Your task to perform on an android device: turn off notifications in google photos Image 0: 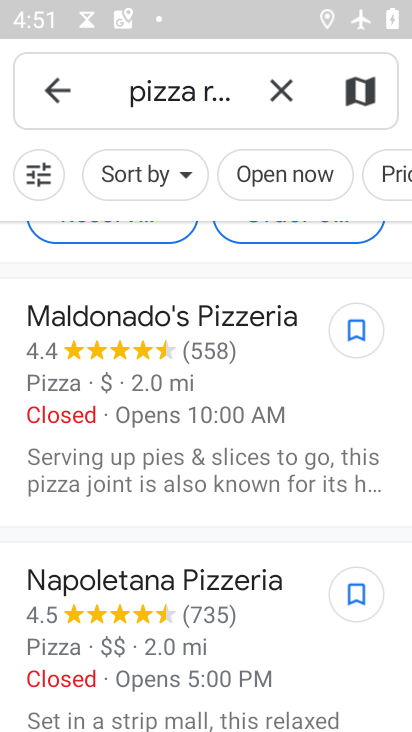
Step 0: press back button
Your task to perform on an android device: turn off notifications in google photos Image 1: 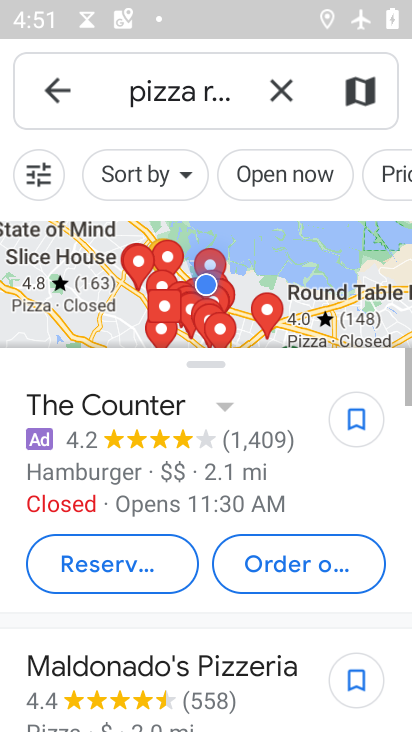
Step 1: press back button
Your task to perform on an android device: turn off notifications in google photos Image 2: 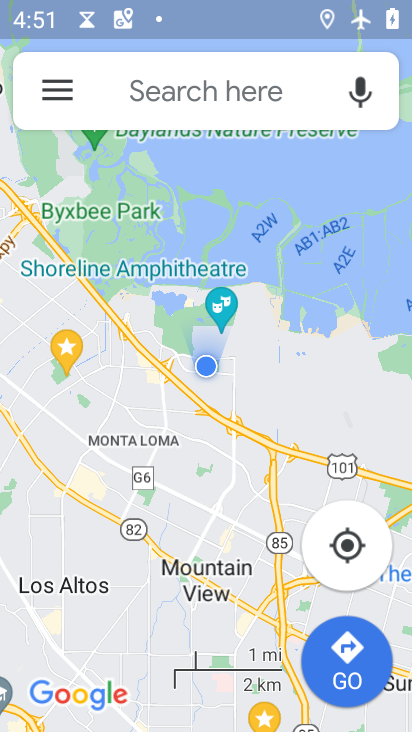
Step 2: press back button
Your task to perform on an android device: turn off notifications in google photos Image 3: 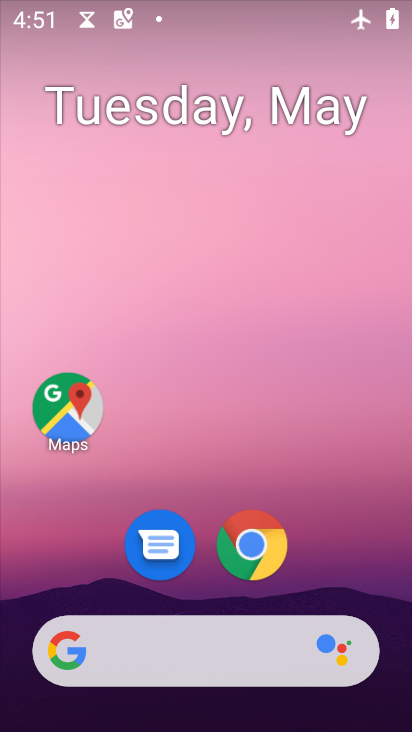
Step 3: drag from (317, 547) to (200, 146)
Your task to perform on an android device: turn off notifications in google photos Image 4: 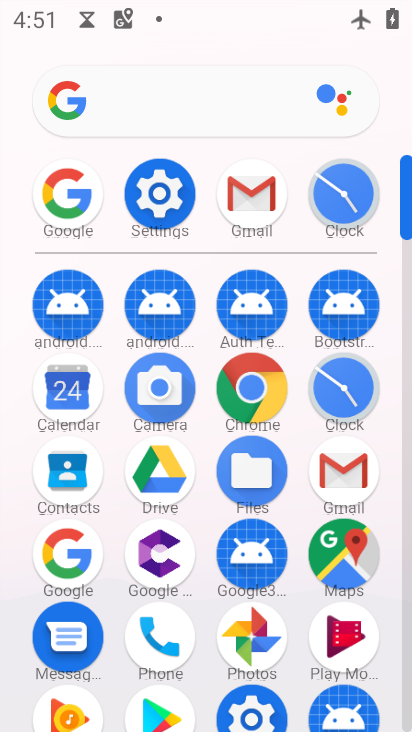
Step 4: click (249, 636)
Your task to perform on an android device: turn off notifications in google photos Image 5: 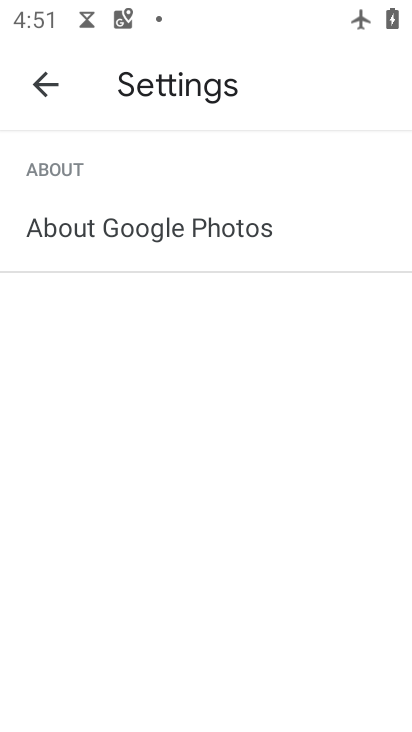
Step 5: click (52, 87)
Your task to perform on an android device: turn off notifications in google photos Image 6: 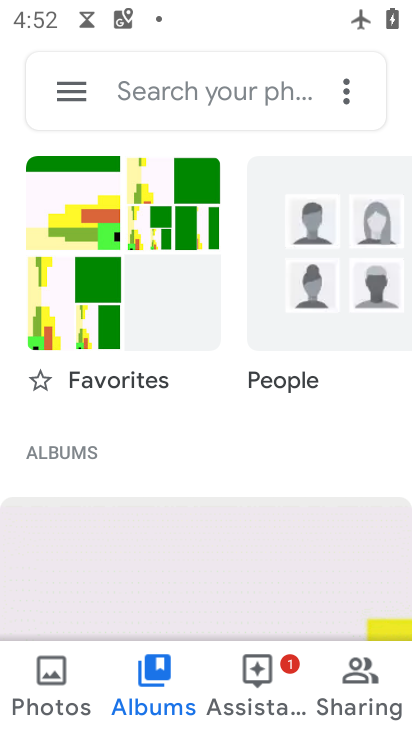
Step 6: click (69, 95)
Your task to perform on an android device: turn off notifications in google photos Image 7: 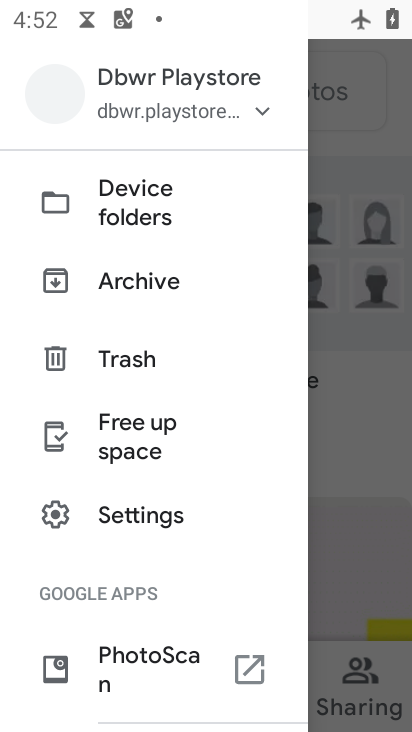
Step 7: click (137, 509)
Your task to perform on an android device: turn off notifications in google photos Image 8: 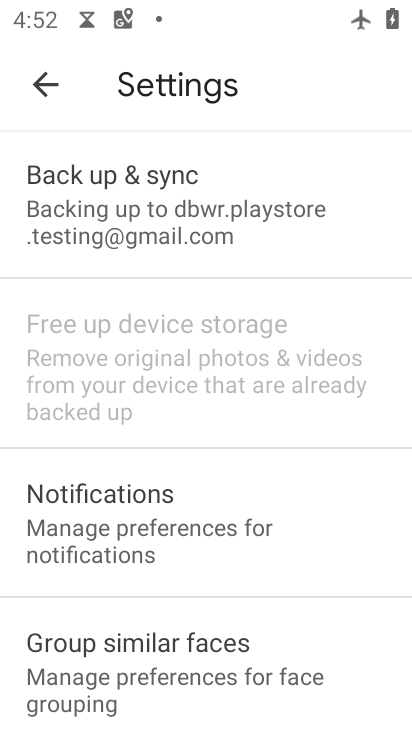
Step 8: click (113, 494)
Your task to perform on an android device: turn off notifications in google photos Image 9: 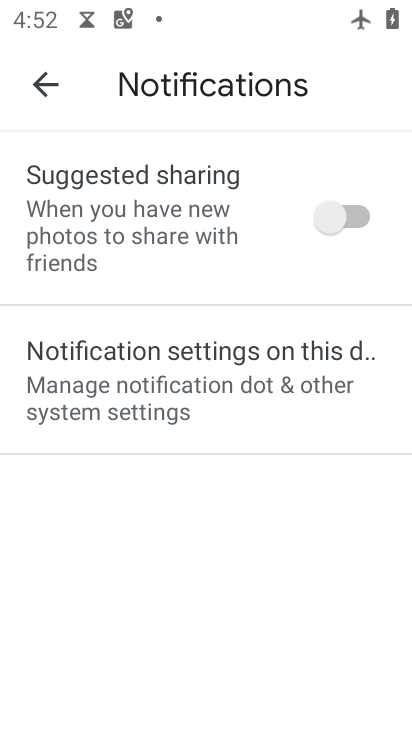
Step 9: click (118, 354)
Your task to perform on an android device: turn off notifications in google photos Image 10: 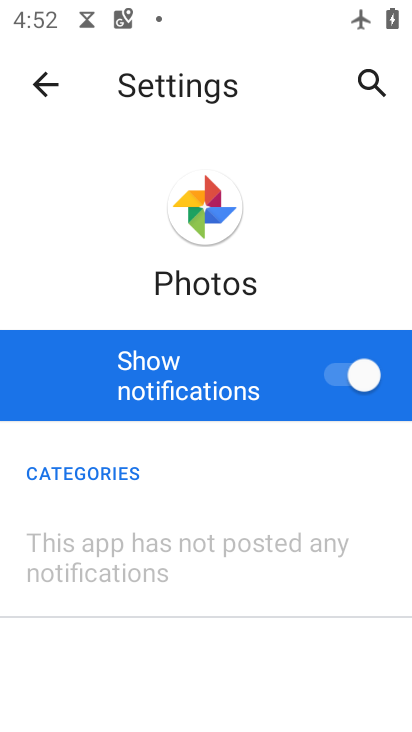
Step 10: click (337, 379)
Your task to perform on an android device: turn off notifications in google photos Image 11: 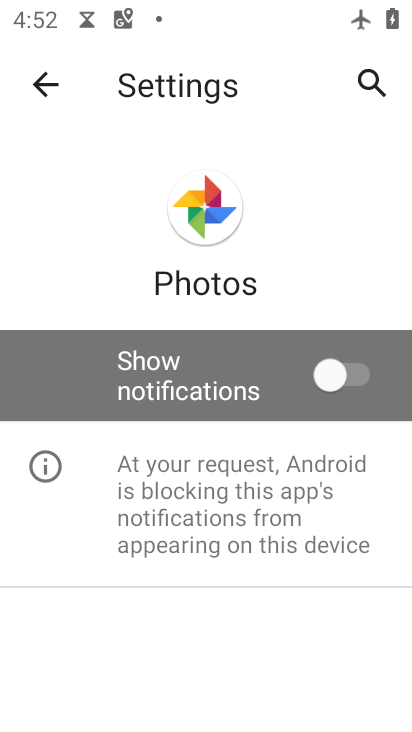
Step 11: task complete